Your task to perform on an android device: change timer sound Image 0: 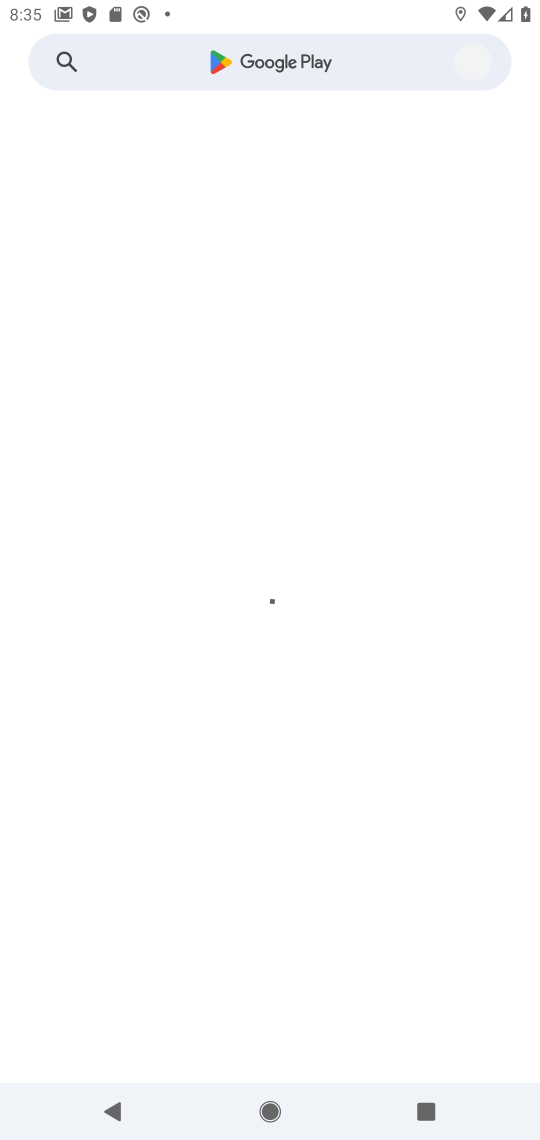
Step 0: press home button
Your task to perform on an android device: change timer sound Image 1: 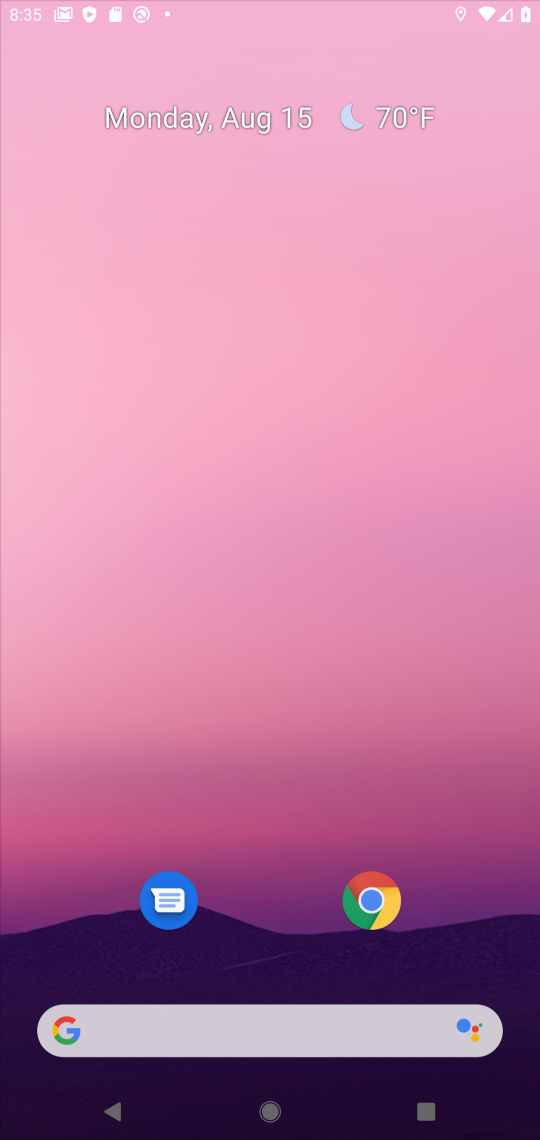
Step 1: drag from (359, 91) to (302, 0)
Your task to perform on an android device: change timer sound Image 2: 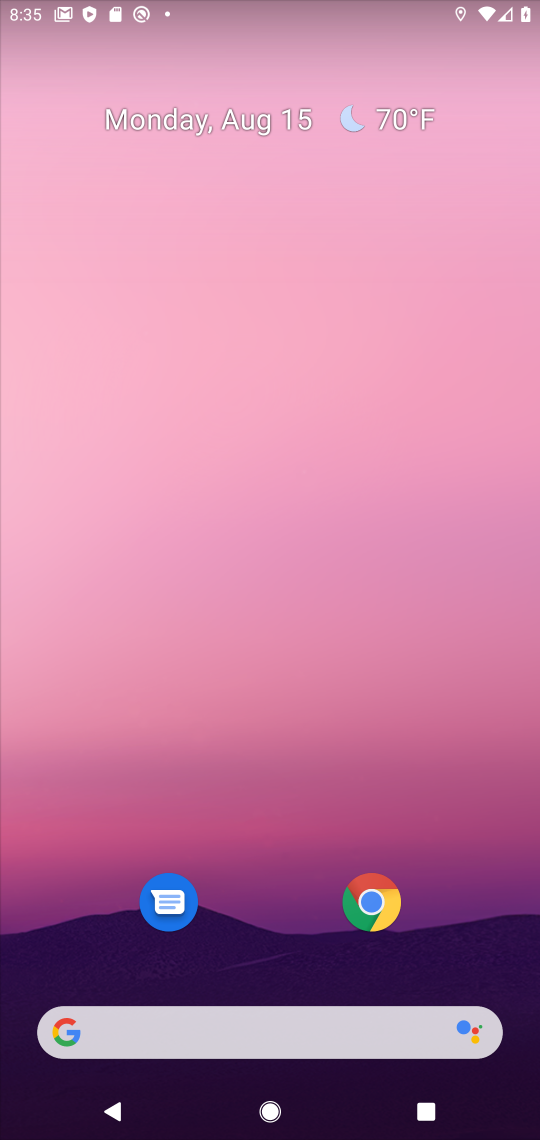
Step 2: drag from (482, 932) to (301, 0)
Your task to perform on an android device: change timer sound Image 3: 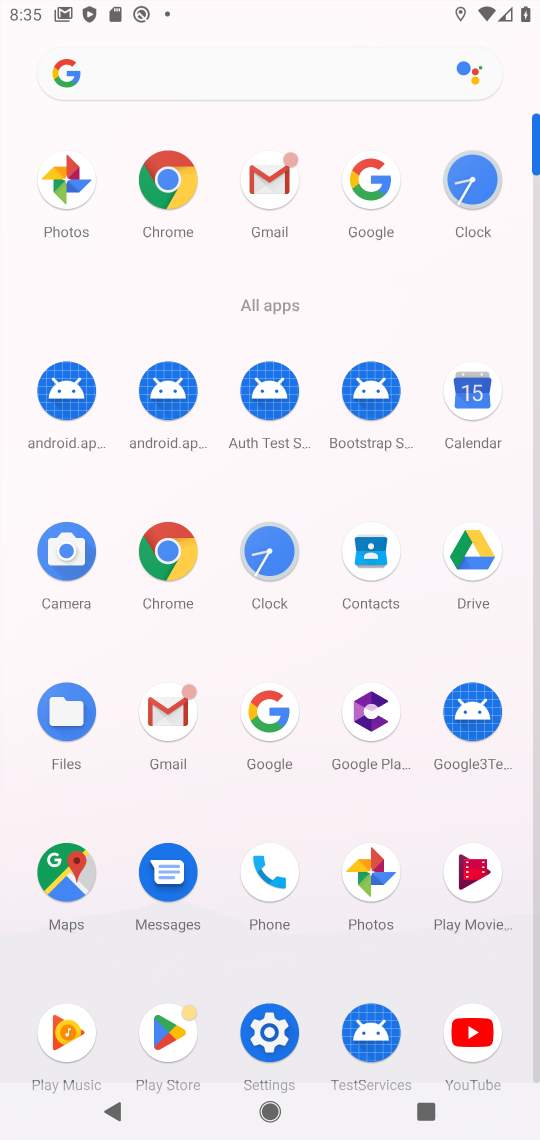
Step 3: click (265, 589)
Your task to perform on an android device: change timer sound Image 4: 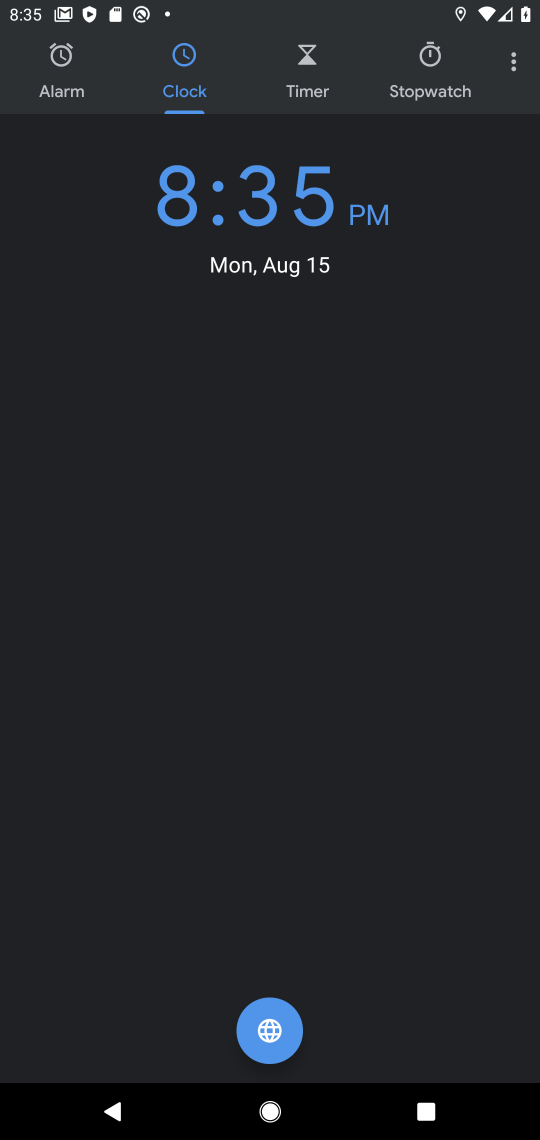
Step 4: click (509, 56)
Your task to perform on an android device: change timer sound Image 5: 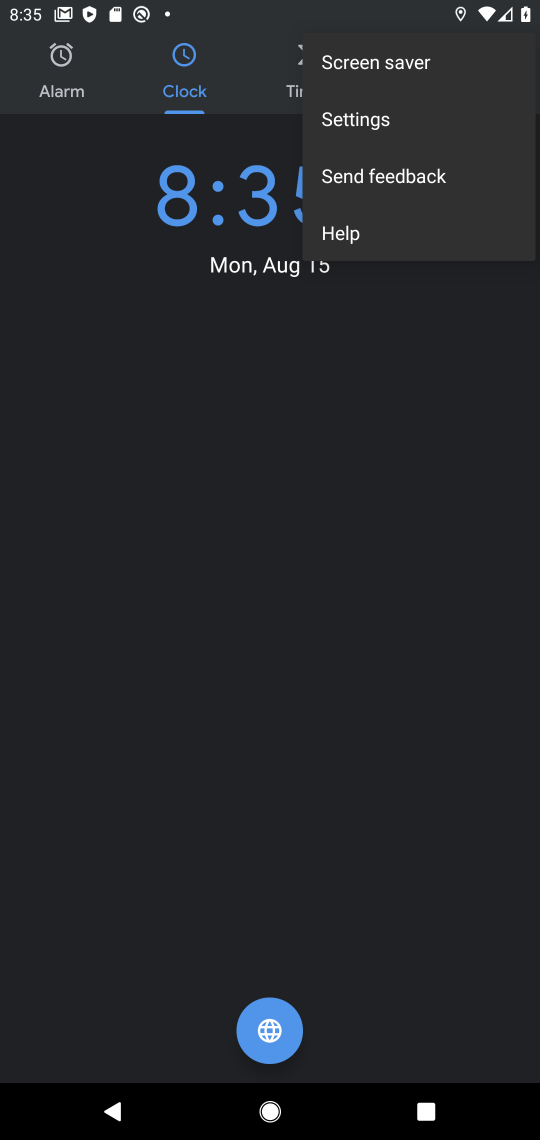
Step 5: click (396, 126)
Your task to perform on an android device: change timer sound Image 6: 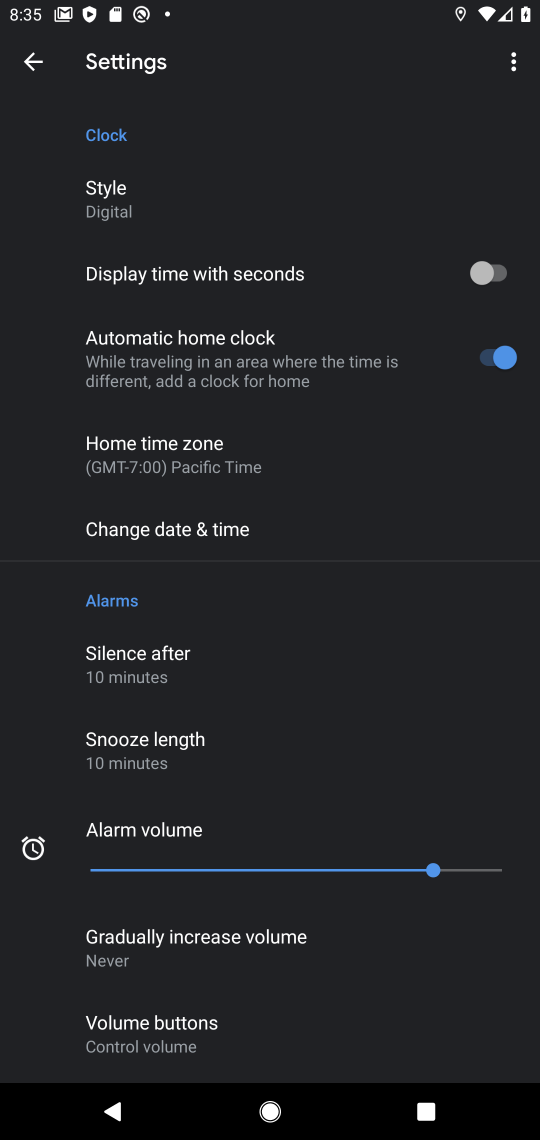
Step 6: drag from (214, 987) to (199, 177)
Your task to perform on an android device: change timer sound Image 7: 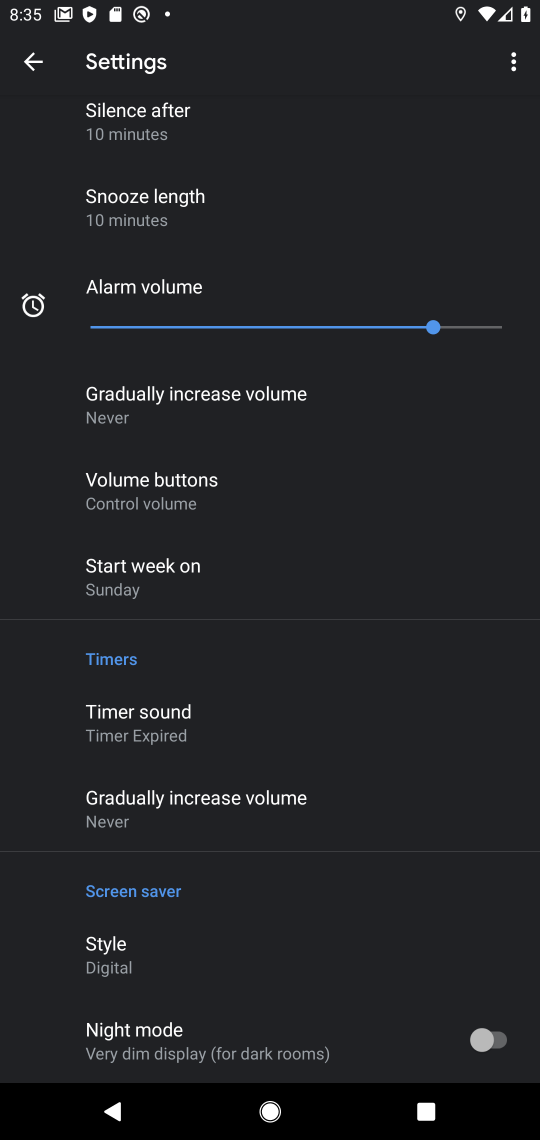
Step 7: click (168, 738)
Your task to perform on an android device: change timer sound Image 8: 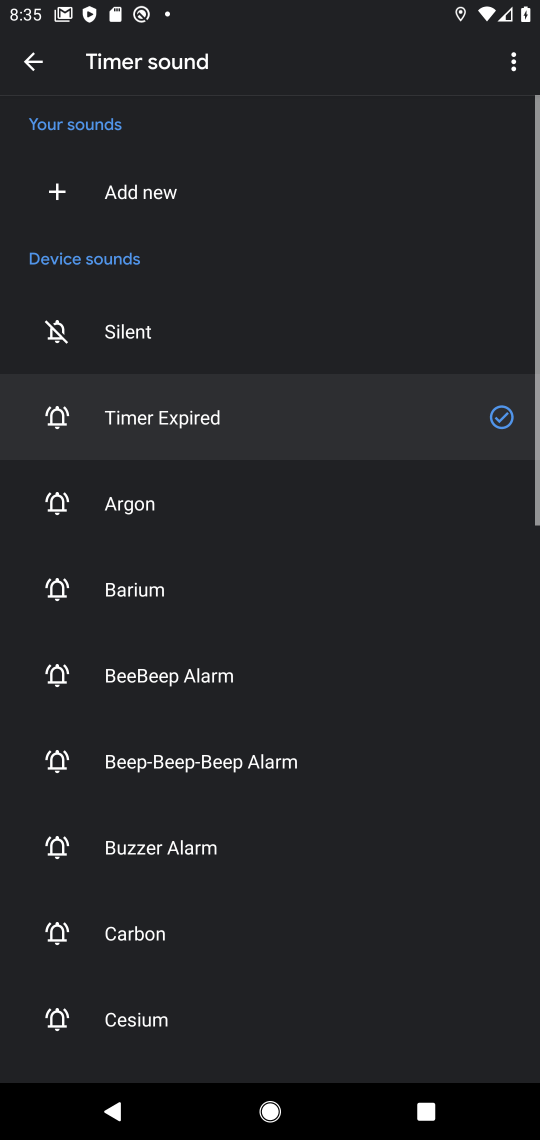
Step 8: click (177, 678)
Your task to perform on an android device: change timer sound Image 9: 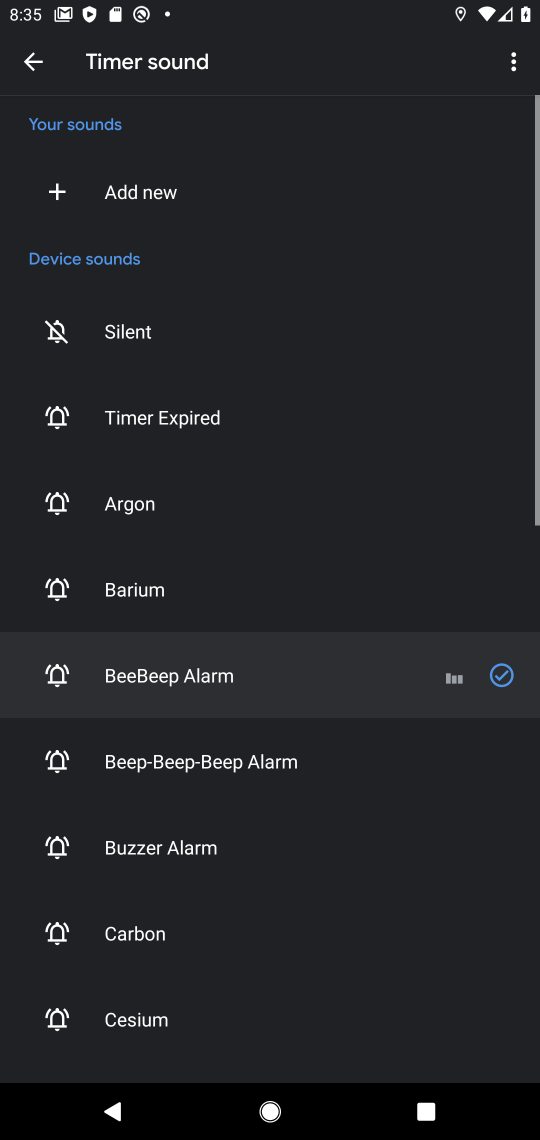
Step 9: task complete